Your task to perform on an android device: show emergency info Image 0: 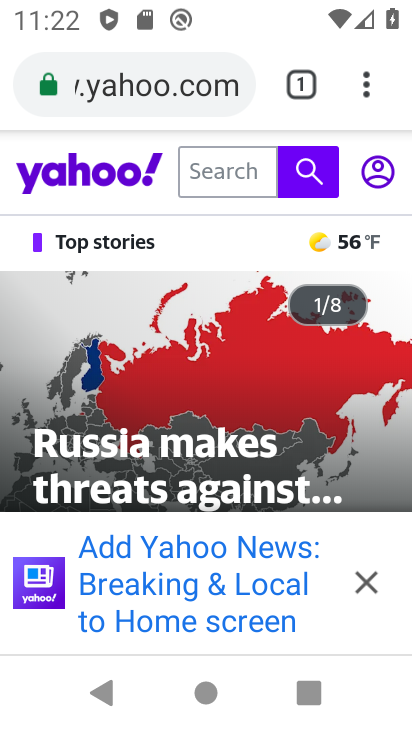
Step 0: press home button
Your task to perform on an android device: show emergency info Image 1: 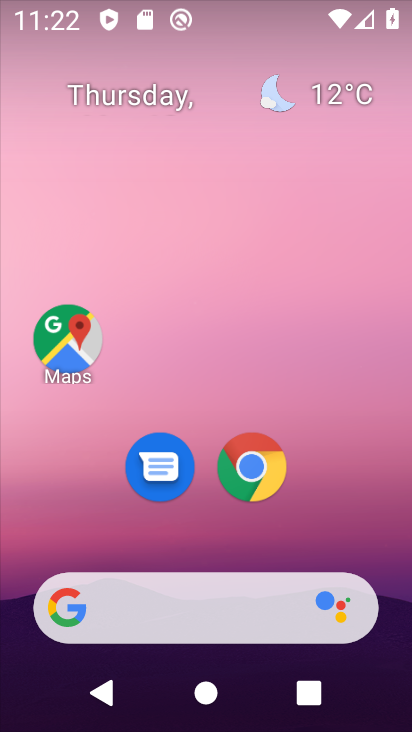
Step 1: drag from (371, 486) to (226, 2)
Your task to perform on an android device: show emergency info Image 2: 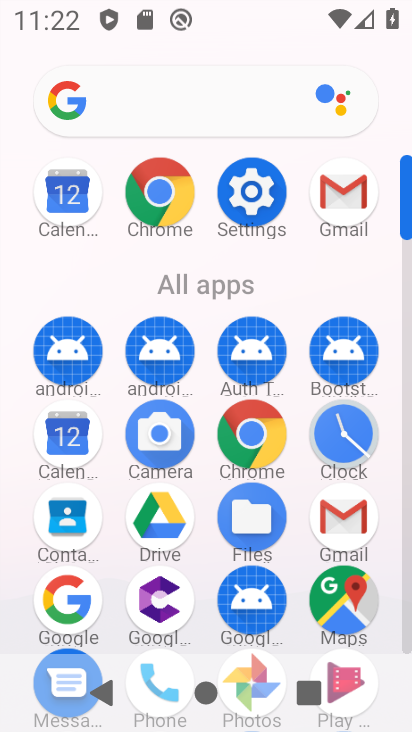
Step 2: click (224, 199)
Your task to perform on an android device: show emergency info Image 3: 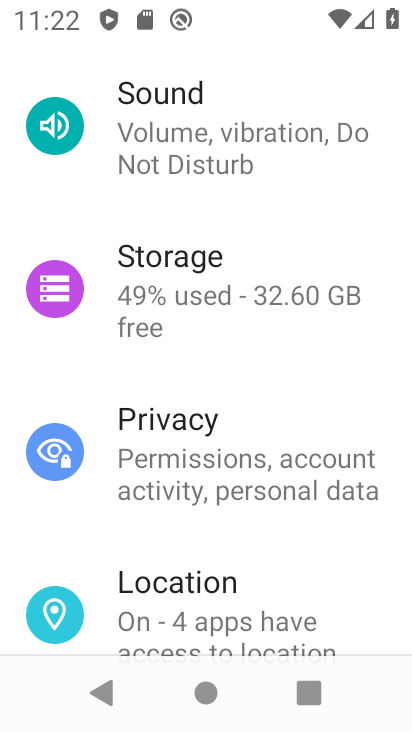
Step 3: drag from (222, 507) to (249, 68)
Your task to perform on an android device: show emergency info Image 4: 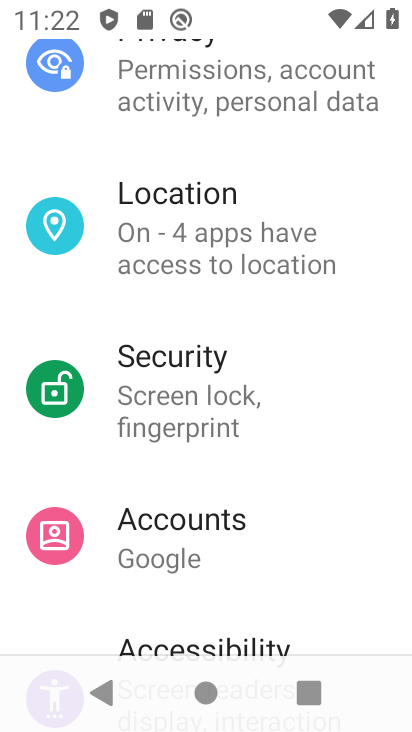
Step 4: drag from (259, 530) to (352, 115)
Your task to perform on an android device: show emergency info Image 5: 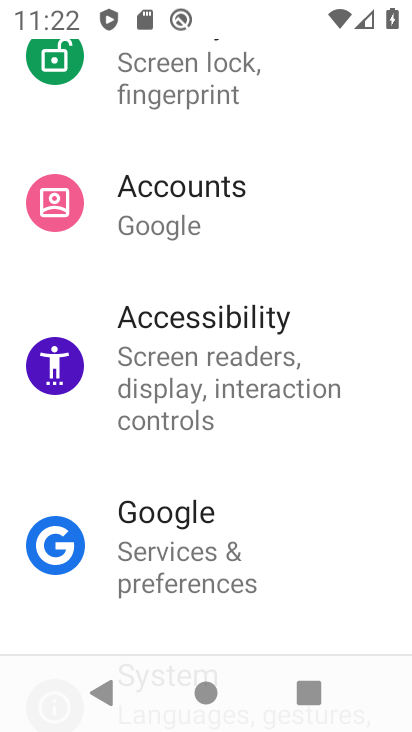
Step 5: drag from (306, 556) to (394, 128)
Your task to perform on an android device: show emergency info Image 6: 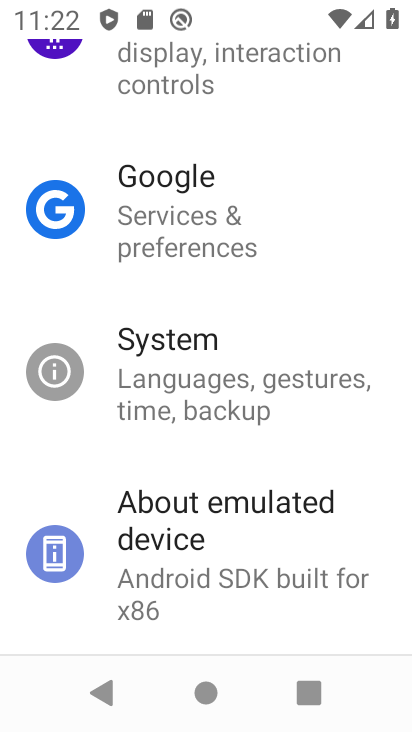
Step 6: drag from (273, 547) to (332, 110)
Your task to perform on an android device: show emergency info Image 7: 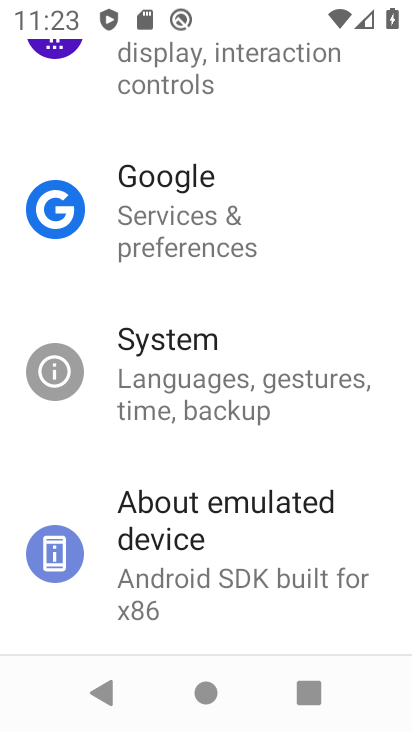
Step 7: click (222, 515)
Your task to perform on an android device: show emergency info Image 8: 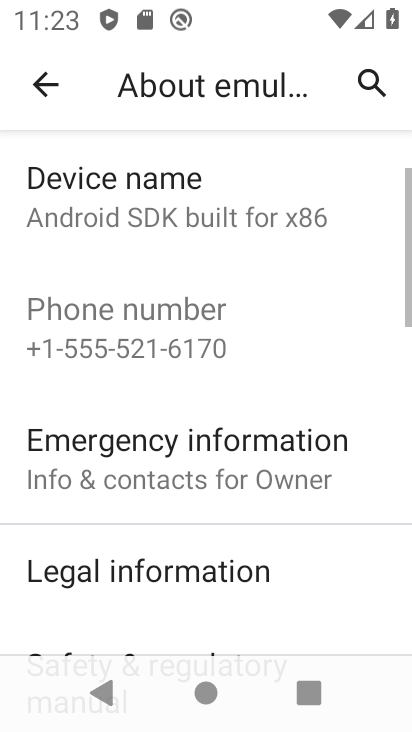
Step 8: click (203, 471)
Your task to perform on an android device: show emergency info Image 9: 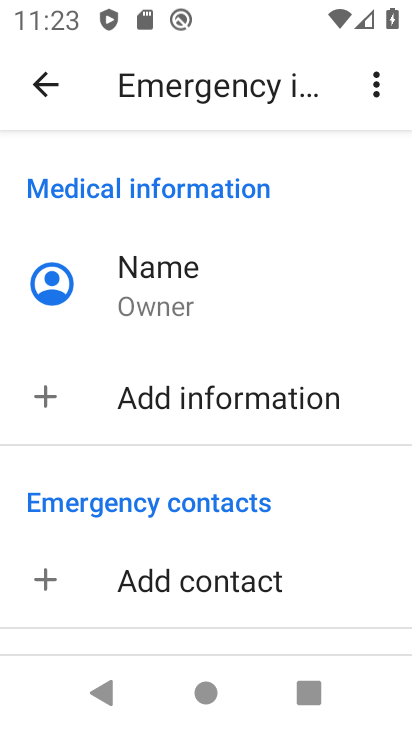
Step 9: task complete